Your task to perform on an android device: open chrome and create a bookmark for the current page Image 0: 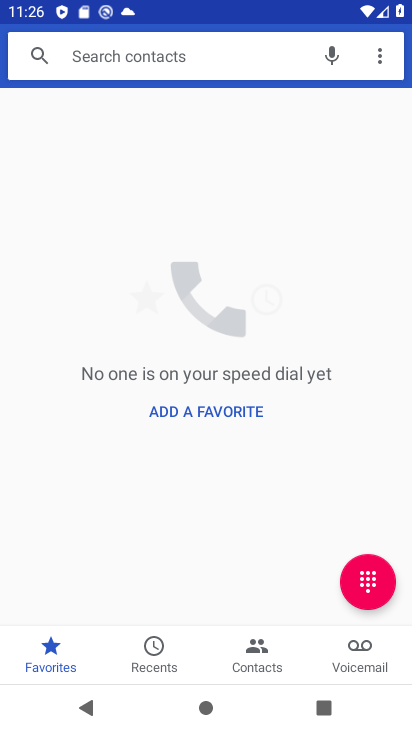
Step 0: press home button
Your task to perform on an android device: open chrome and create a bookmark for the current page Image 1: 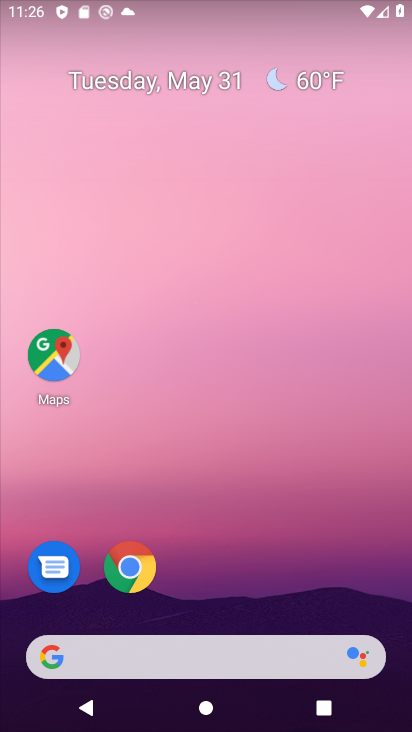
Step 1: click (126, 574)
Your task to perform on an android device: open chrome and create a bookmark for the current page Image 2: 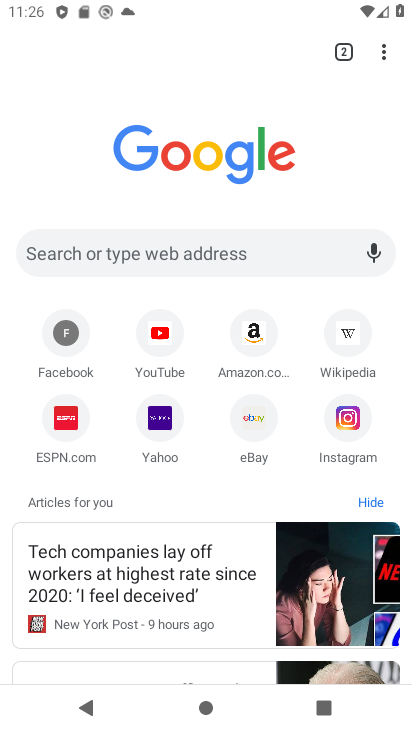
Step 2: task complete